Your task to perform on an android device: Open Youtube and go to the subscriptions tab Image 0: 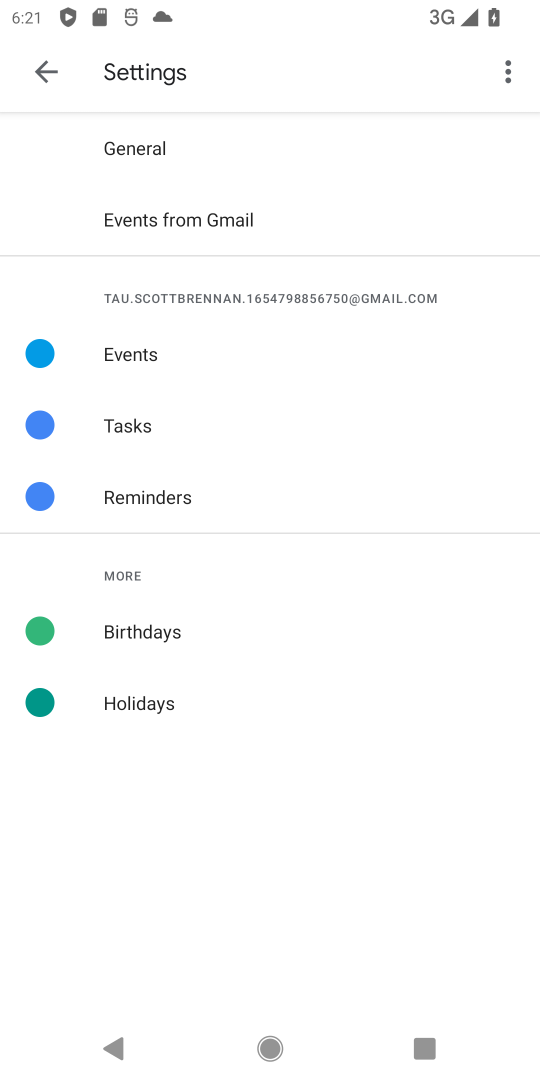
Step 0: press home button
Your task to perform on an android device: Open Youtube and go to the subscriptions tab Image 1: 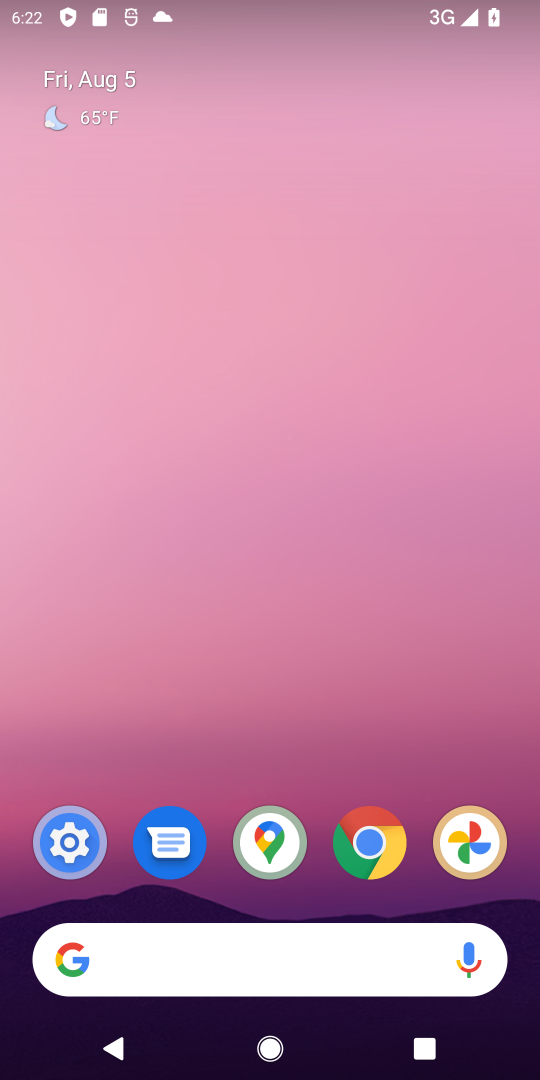
Step 1: drag from (13, 924) to (367, 36)
Your task to perform on an android device: Open Youtube and go to the subscriptions tab Image 2: 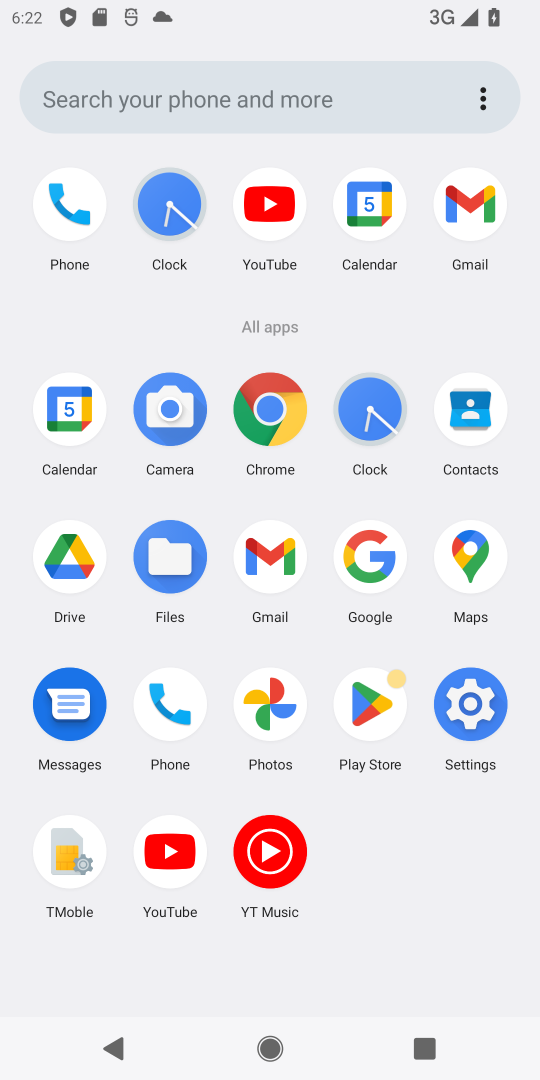
Step 2: click (167, 847)
Your task to perform on an android device: Open Youtube and go to the subscriptions tab Image 3: 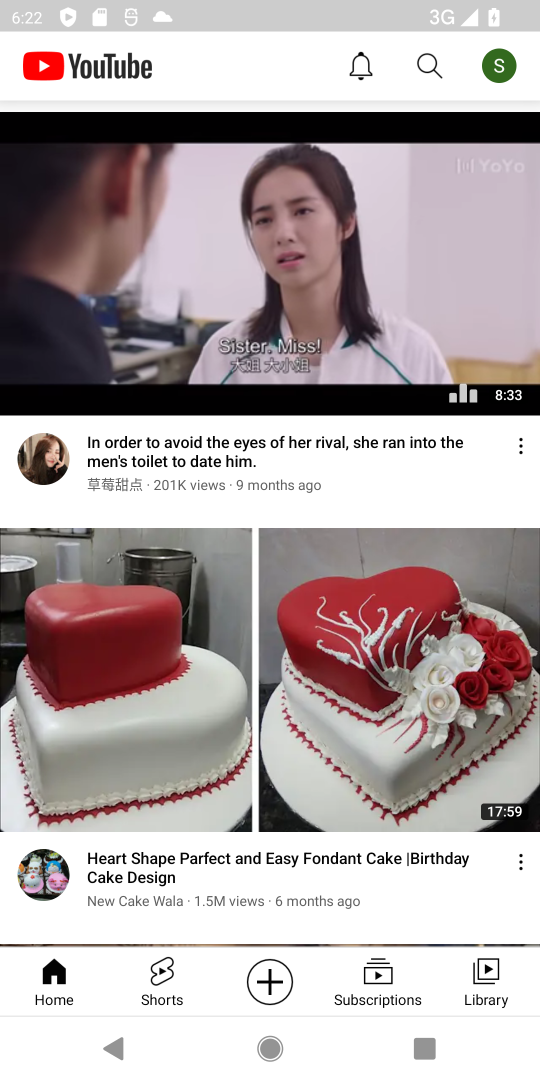
Step 3: click (367, 972)
Your task to perform on an android device: Open Youtube and go to the subscriptions tab Image 4: 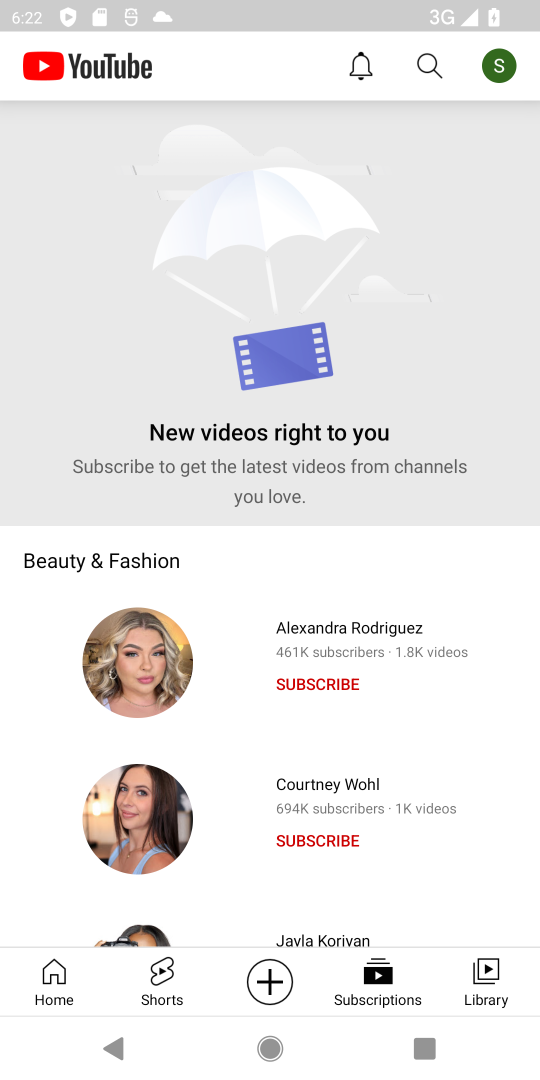
Step 4: task complete